Your task to perform on an android device: Open calendar and show me the first week of next month Image 0: 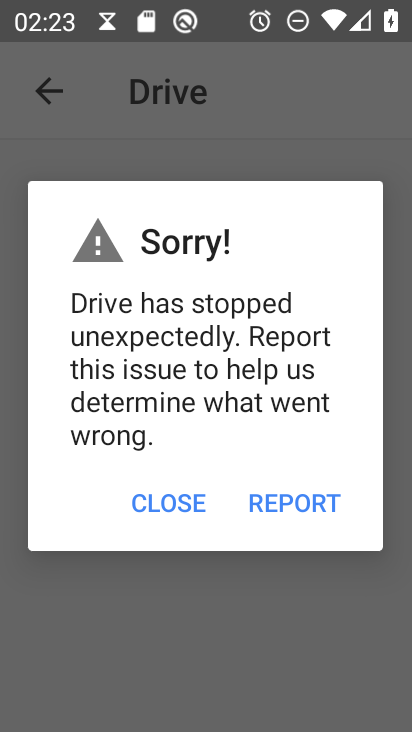
Step 0: press home button
Your task to perform on an android device: Open calendar and show me the first week of next month Image 1: 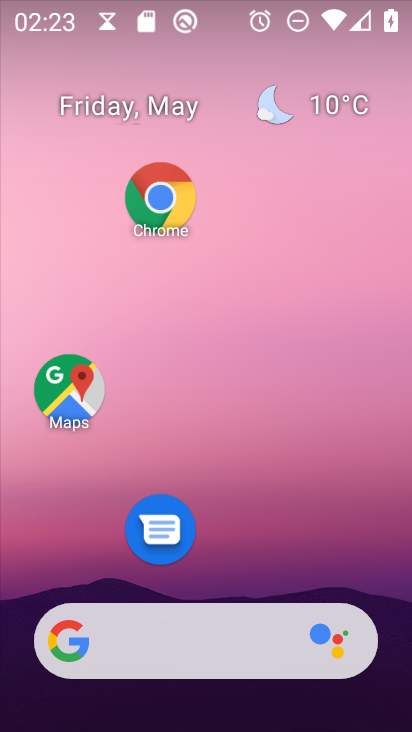
Step 1: drag from (250, 467) to (241, 172)
Your task to perform on an android device: Open calendar and show me the first week of next month Image 2: 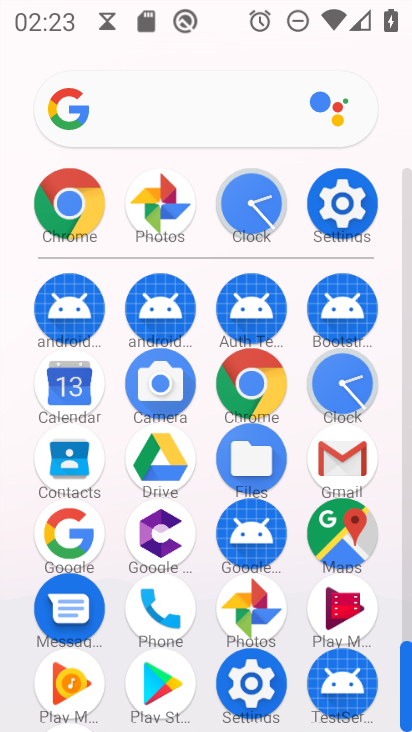
Step 2: click (45, 390)
Your task to perform on an android device: Open calendar and show me the first week of next month Image 3: 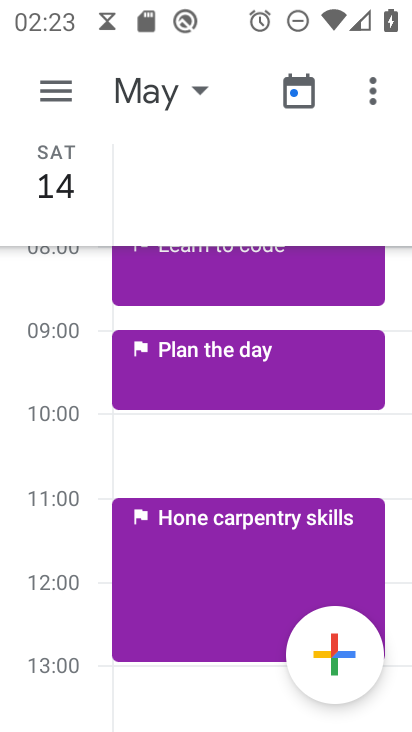
Step 3: click (75, 86)
Your task to perform on an android device: Open calendar and show me the first week of next month Image 4: 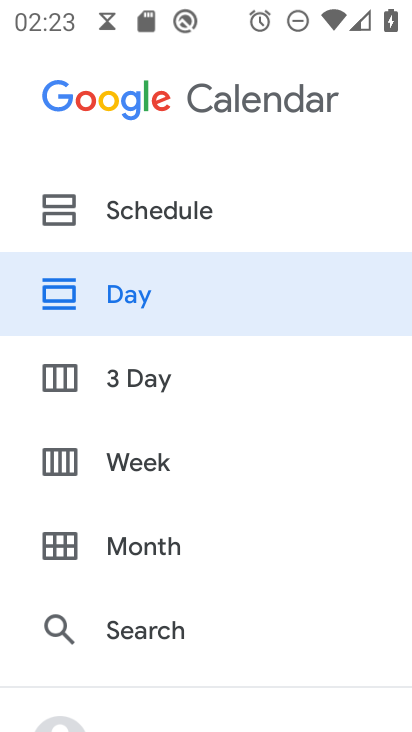
Step 4: click (139, 551)
Your task to perform on an android device: Open calendar and show me the first week of next month Image 5: 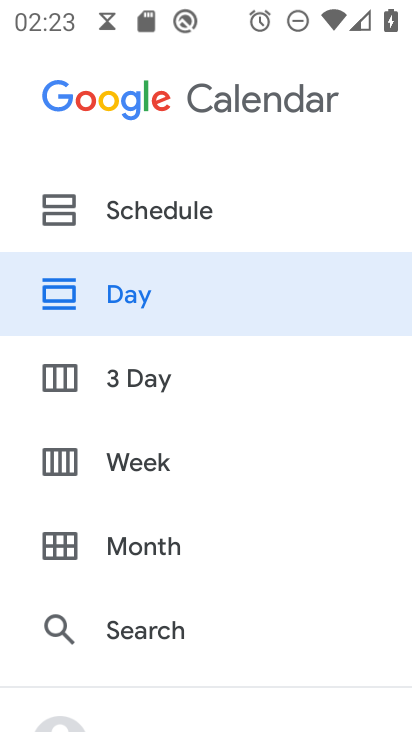
Step 5: click (137, 532)
Your task to perform on an android device: Open calendar and show me the first week of next month Image 6: 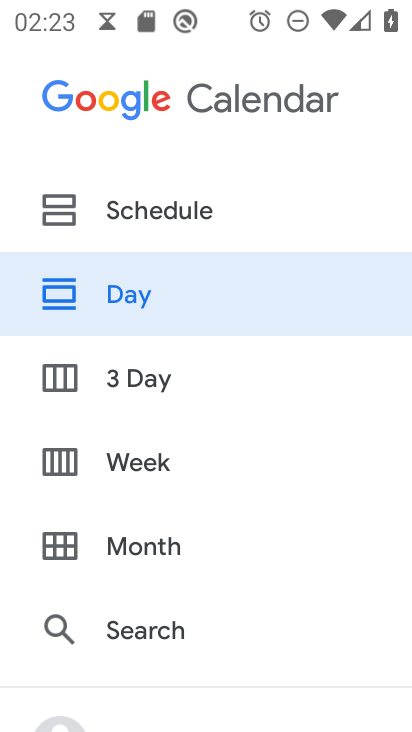
Step 6: click (127, 546)
Your task to perform on an android device: Open calendar and show me the first week of next month Image 7: 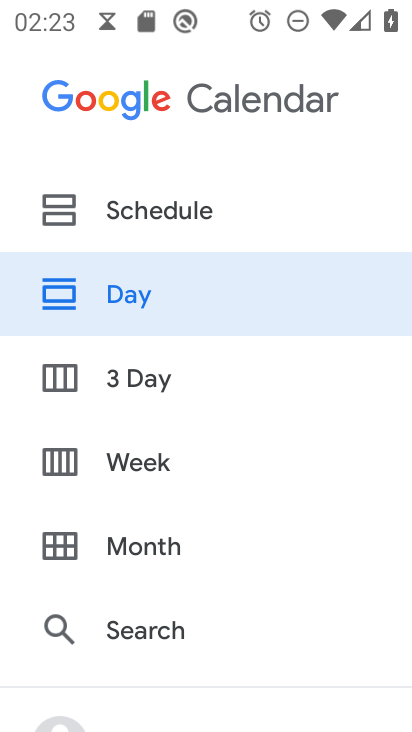
Step 7: click (124, 545)
Your task to perform on an android device: Open calendar and show me the first week of next month Image 8: 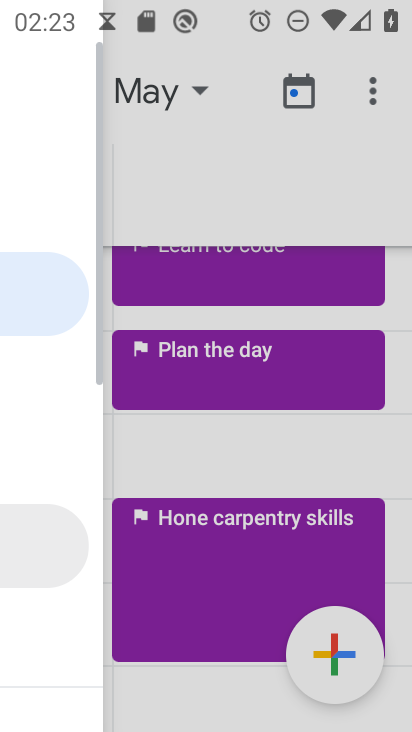
Step 8: click (122, 544)
Your task to perform on an android device: Open calendar and show me the first week of next month Image 9: 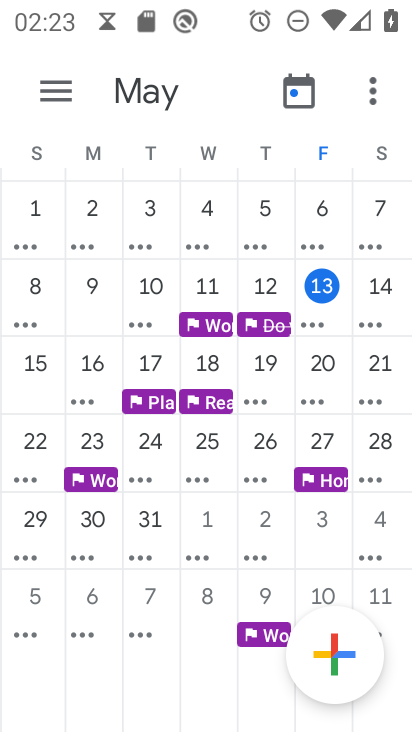
Step 9: click (122, 544)
Your task to perform on an android device: Open calendar and show me the first week of next month Image 10: 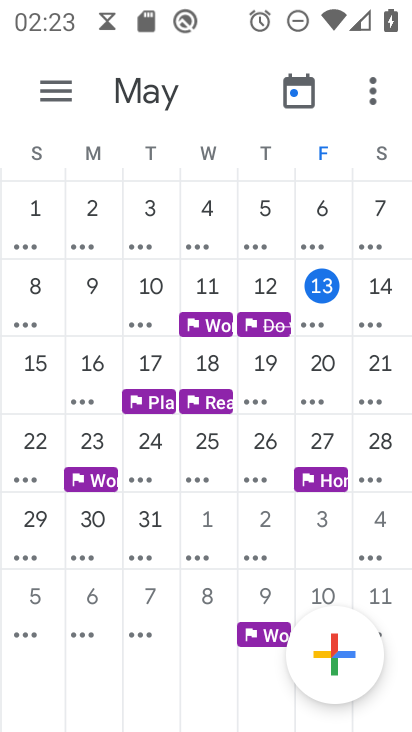
Step 10: task complete